Your task to perform on an android device: Go to Amazon Image 0: 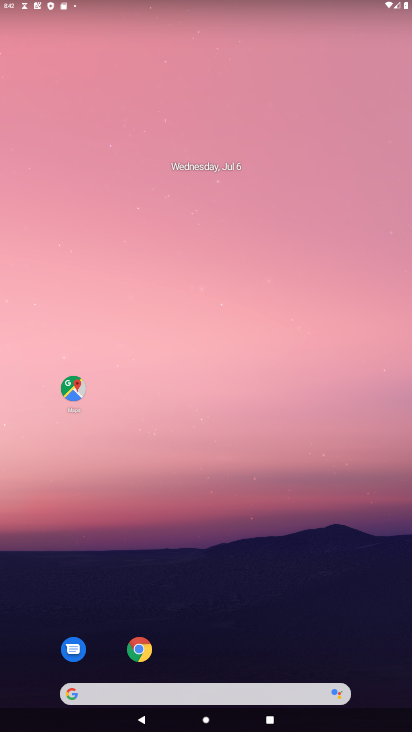
Step 0: drag from (212, 655) to (185, 11)
Your task to perform on an android device: Go to Amazon Image 1: 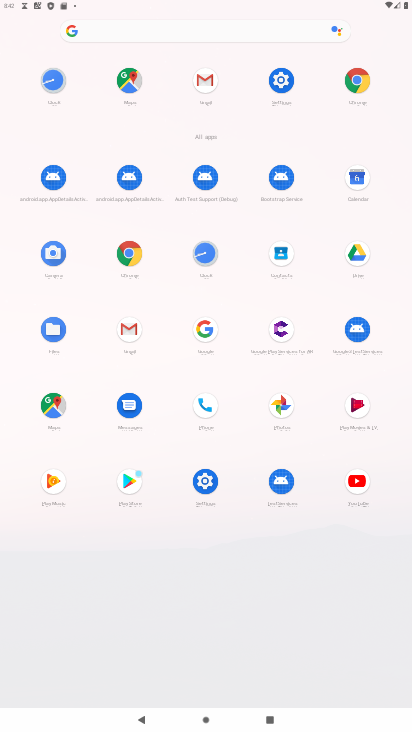
Step 1: click (130, 245)
Your task to perform on an android device: Go to Amazon Image 2: 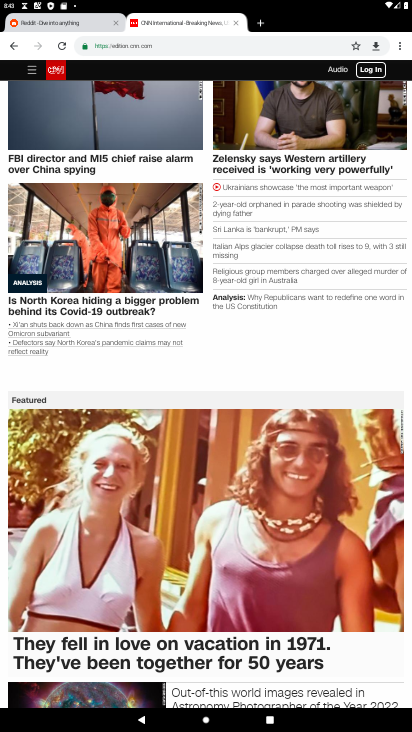
Step 2: click (258, 22)
Your task to perform on an android device: Go to Amazon Image 3: 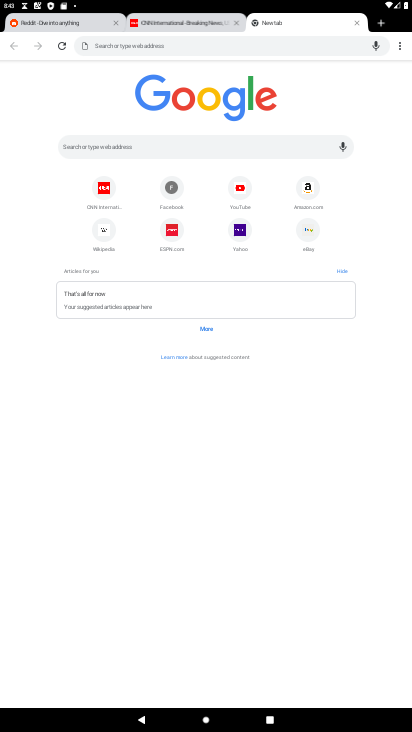
Step 3: click (161, 144)
Your task to perform on an android device: Go to Amazon Image 4: 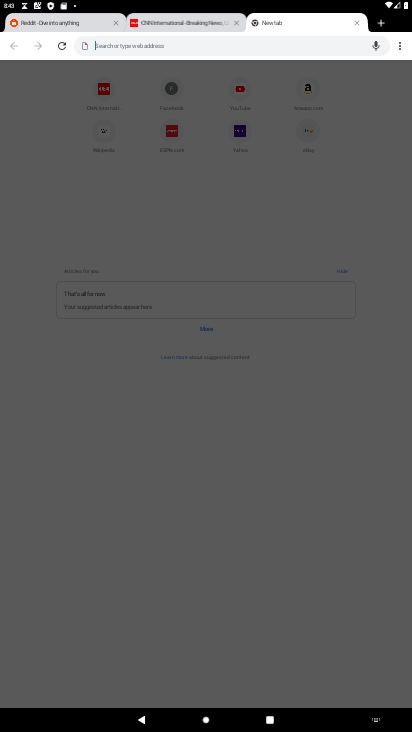
Step 4: click (292, 203)
Your task to perform on an android device: Go to Amazon Image 5: 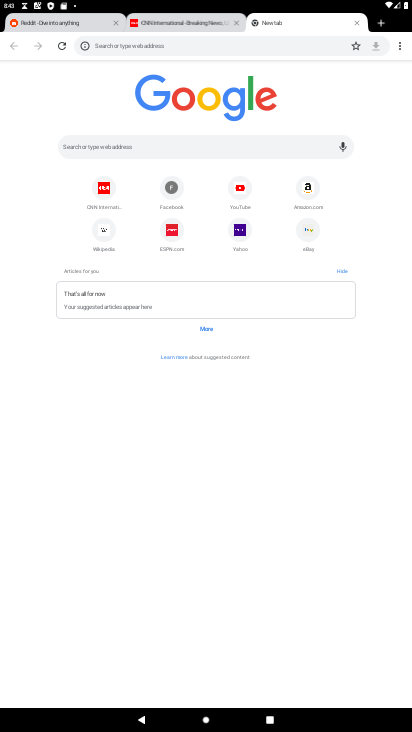
Step 5: click (303, 185)
Your task to perform on an android device: Go to Amazon Image 6: 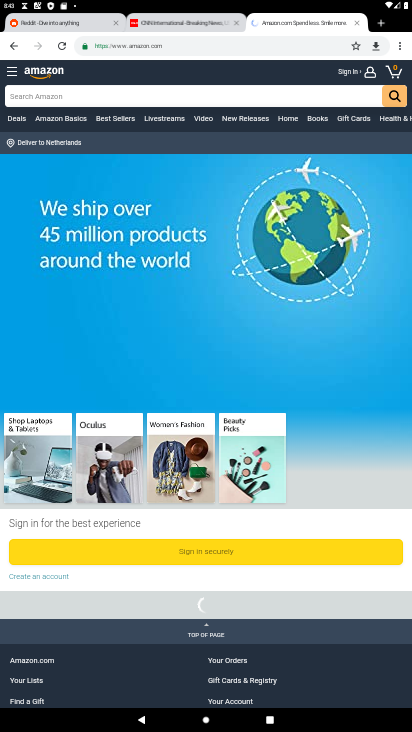
Step 6: task complete